Your task to perform on an android device: Go to notification settings Image 0: 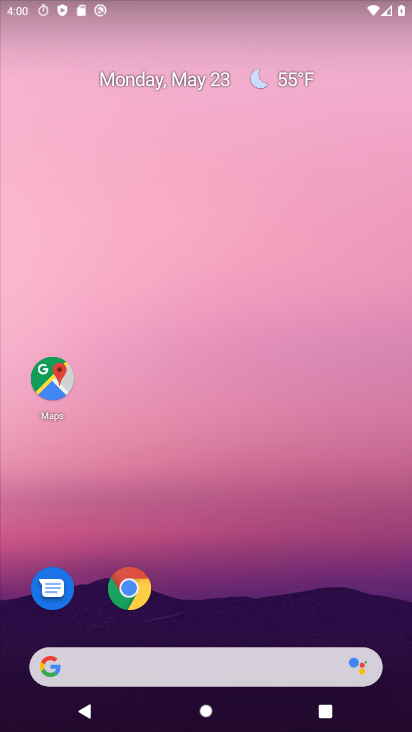
Step 0: drag from (233, 577) to (220, 150)
Your task to perform on an android device: Go to notification settings Image 1: 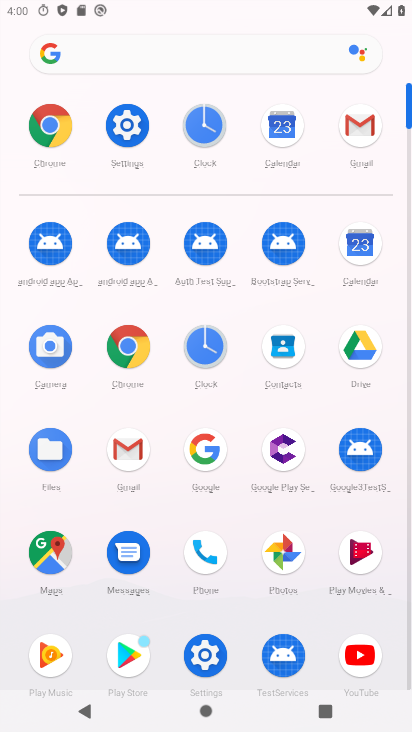
Step 1: click (121, 120)
Your task to perform on an android device: Go to notification settings Image 2: 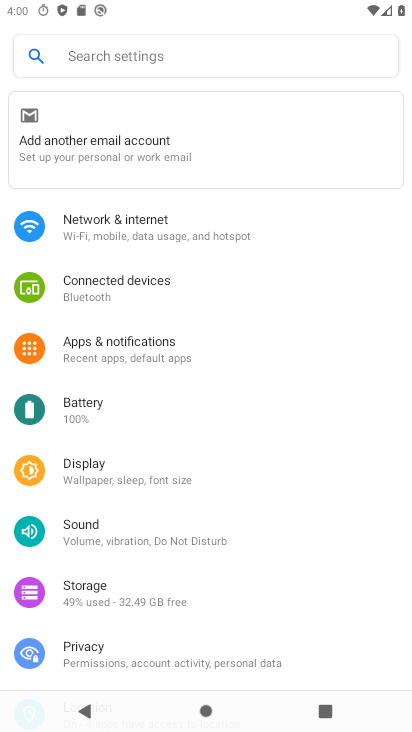
Step 2: click (159, 354)
Your task to perform on an android device: Go to notification settings Image 3: 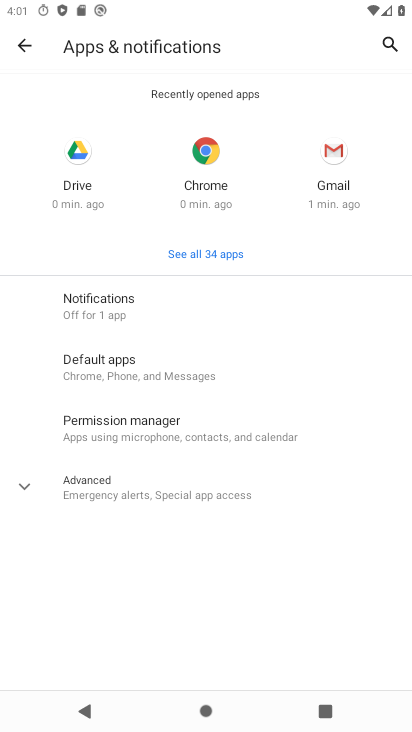
Step 3: click (138, 311)
Your task to perform on an android device: Go to notification settings Image 4: 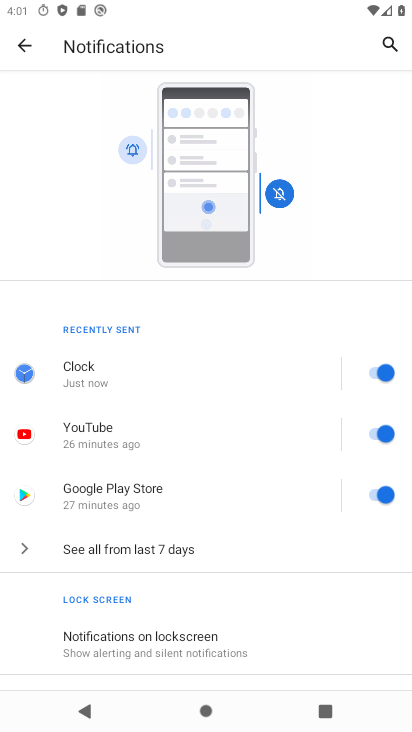
Step 4: drag from (269, 597) to (241, 242)
Your task to perform on an android device: Go to notification settings Image 5: 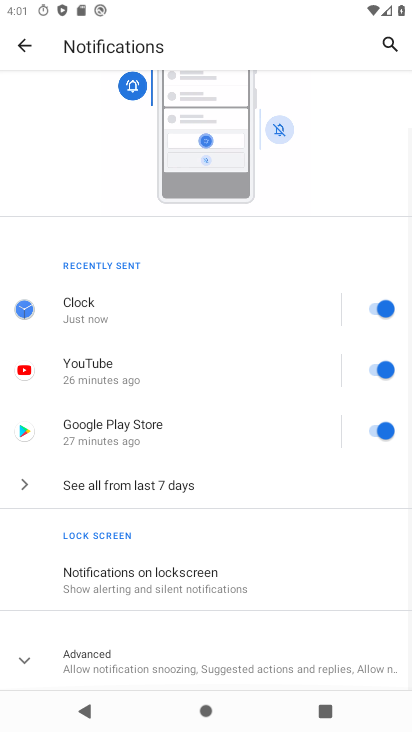
Step 5: click (82, 666)
Your task to perform on an android device: Go to notification settings Image 6: 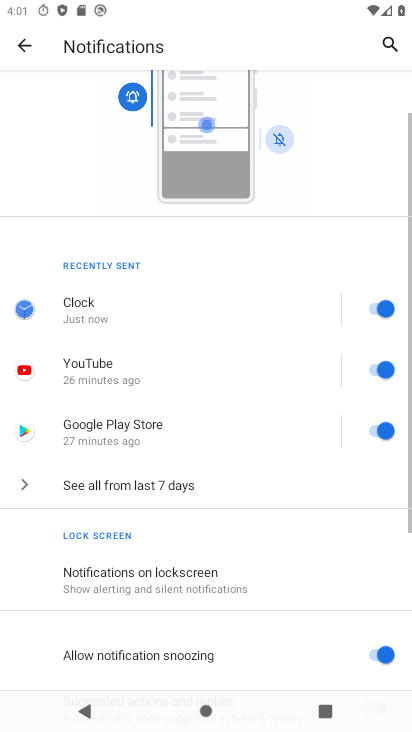
Step 6: drag from (214, 597) to (215, 220)
Your task to perform on an android device: Go to notification settings Image 7: 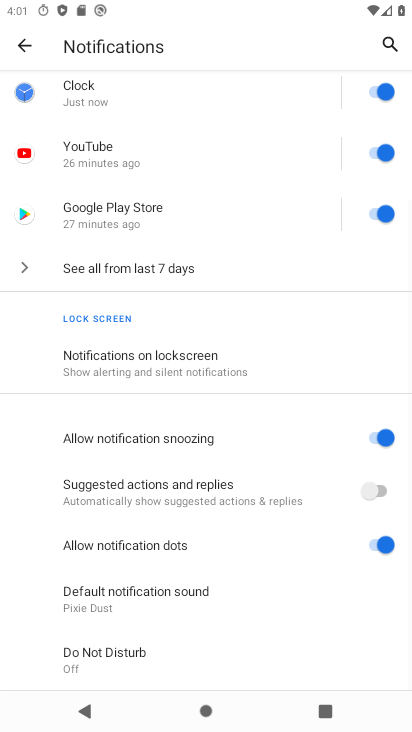
Step 7: click (392, 435)
Your task to perform on an android device: Go to notification settings Image 8: 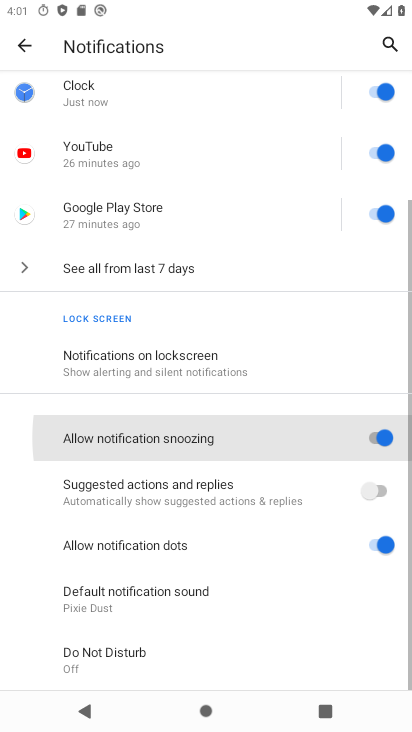
Step 8: click (375, 497)
Your task to perform on an android device: Go to notification settings Image 9: 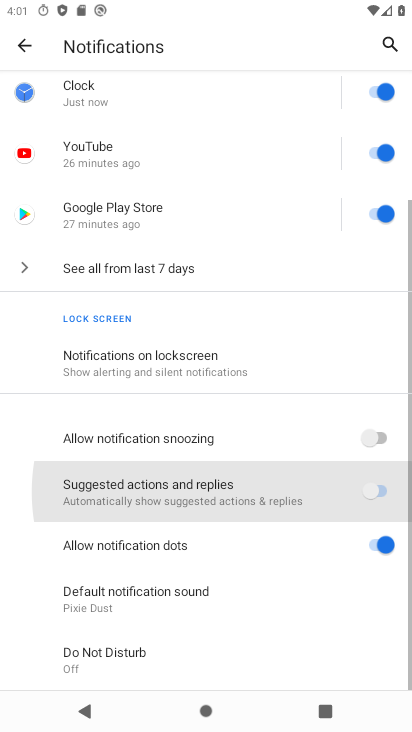
Step 9: click (386, 550)
Your task to perform on an android device: Go to notification settings Image 10: 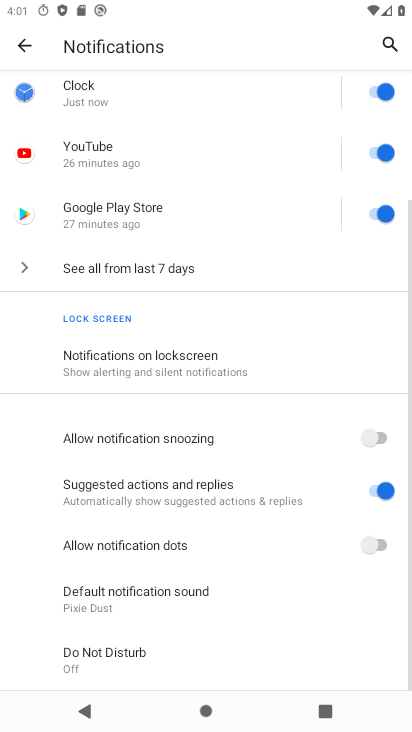
Step 10: task complete